Your task to perform on an android device: find snoozed emails in the gmail app Image 0: 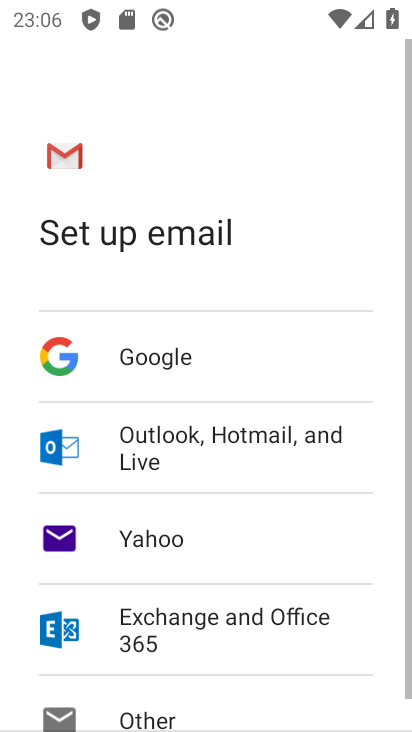
Step 0: press home button
Your task to perform on an android device: find snoozed emails in the gmail app Image 1: 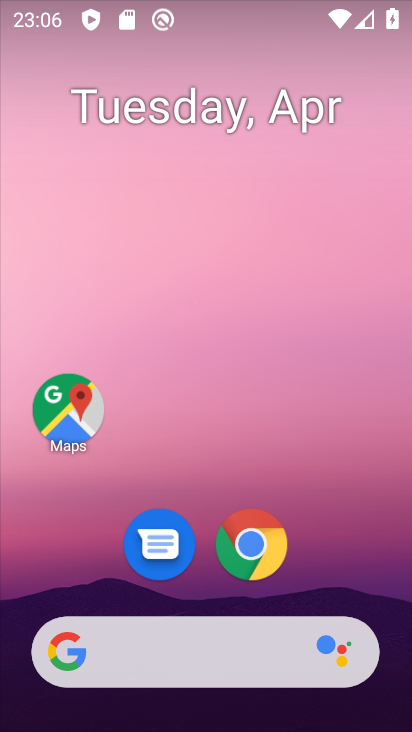
Step 1: drag from (317, 574) to (357, 56)
Your task to perform on an android device: find snoozed emails in the gmail app Image 2: 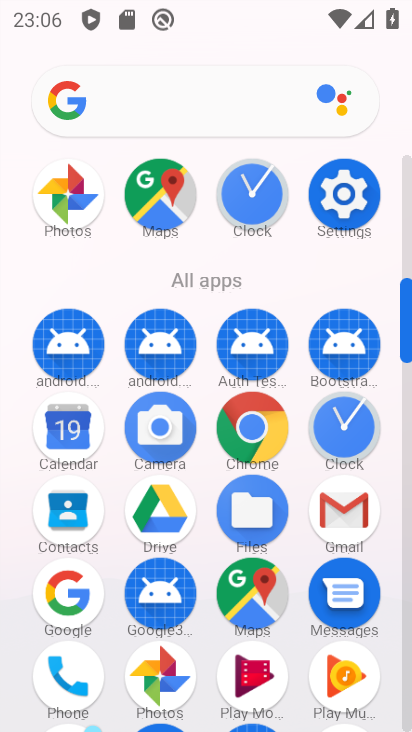
Step 2: click (324, 506)
Your task to perform on an android device: find snoozed emails in the gmail app Image 3: 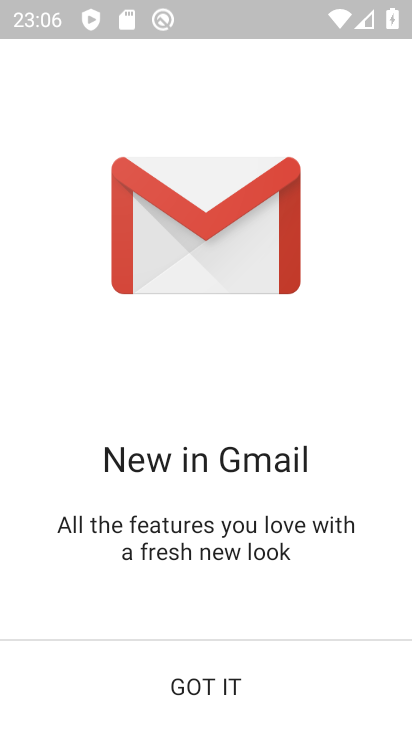
Step 3: click (284, 678)
Your task to perform on an android device: find snoozed emails in the gmail app Image 4: 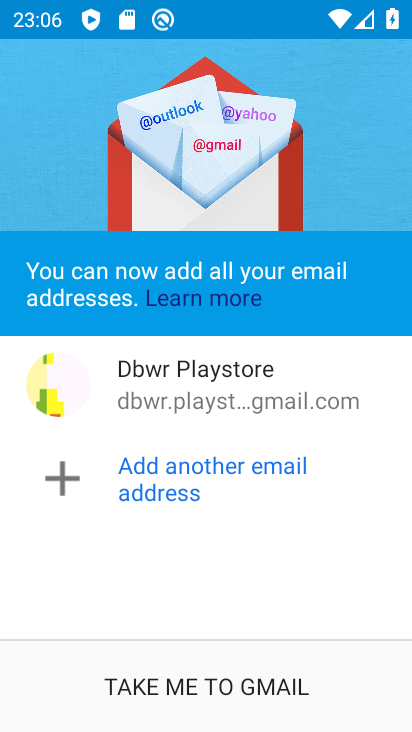
Step 4: click (292, 677)
Your task to perform on an android device: find snoozed emails in the gmail app Image 5: 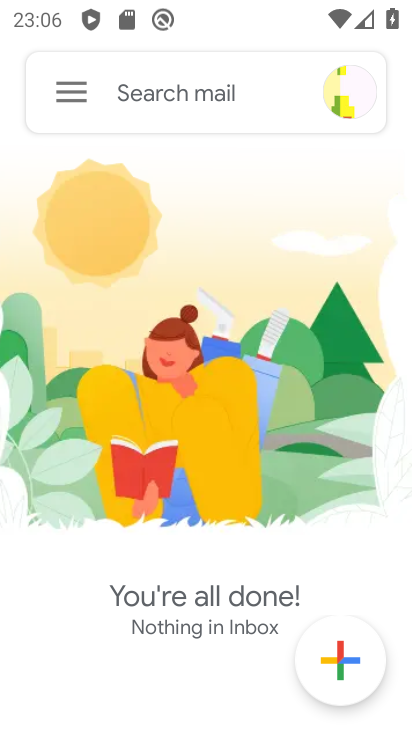
Step 5: click (81, 87)
Your task to perform on an android device: find snoozed emails in the gmail app Image 6: 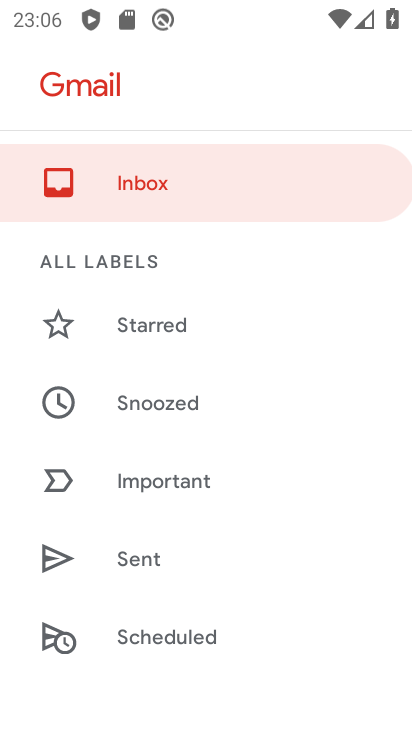
Step 6: click (148, 408)
Your task to perform on an android device: find snoozed emails in the gmail app Image 7: 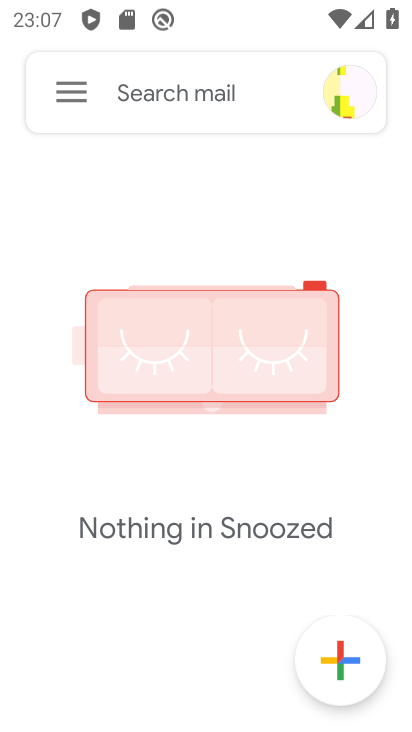
Step 7: task complete